Your task to perform on an android device: Search for top rated burger restaurants on Google Maps Image 0: 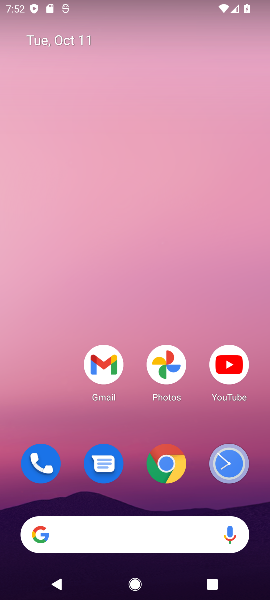
Step 0: drag from (78, 462) to (100, 77)
Your task to perform on an android device: Search for top rated burger restaurants on Google Maps Image 1: 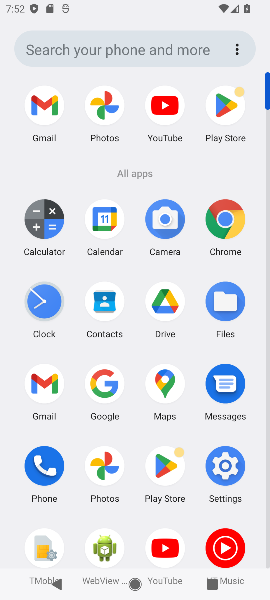
Step 1: click (158, 388)
Your task to perform on an android device: Search for top rated burger restaurants on Google Maps Image 2: 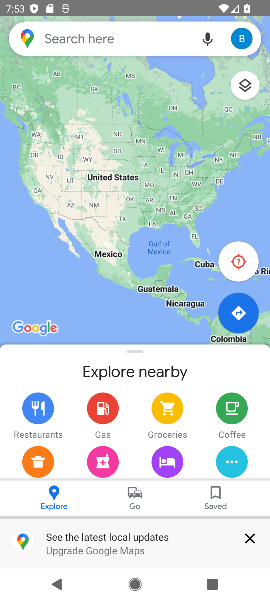
Step 2: click (98, 31)
Your task to perform on an android device: Search for top rated burger restaurants on Google Maps Image 3: 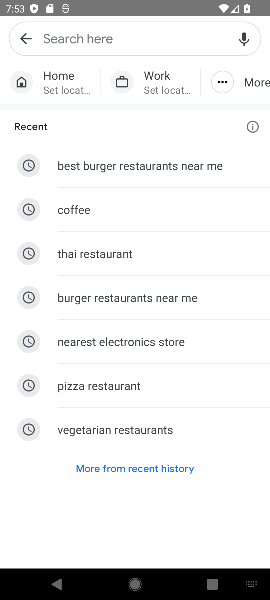
Step 3: type " burger restaurants "
Your task to perform on an android device: Search for top rated burger restaurants on Google Maps Image 4: 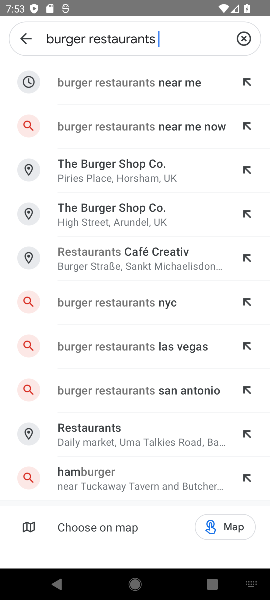
Step 4: click (99, 90)
Your task to perform on an android device: Search for top rated burger restaurants on Google Maps Image 5: 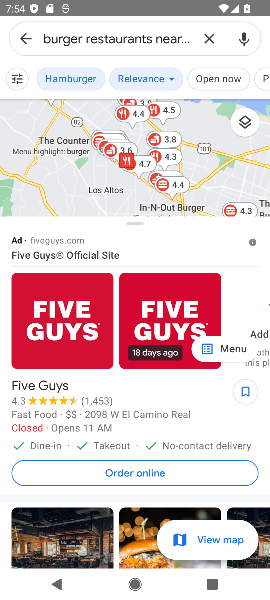
Step 5: task complete